Your task to perform on an android device: turn off notifications in google photos Image 0: 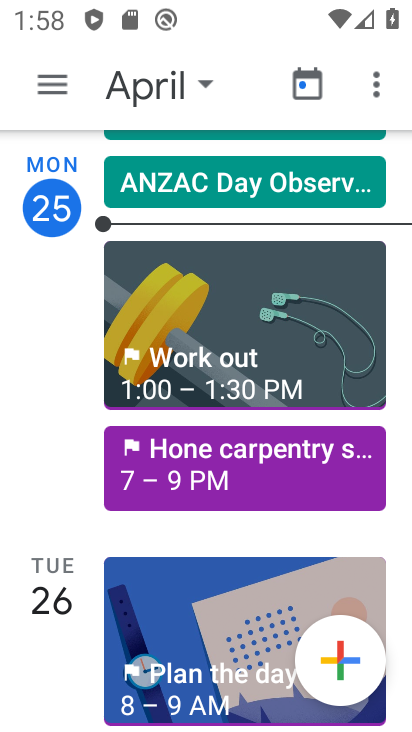
Step 0: press home button
Your task to perform on an android device: turn off notifications in google photos Image 1: 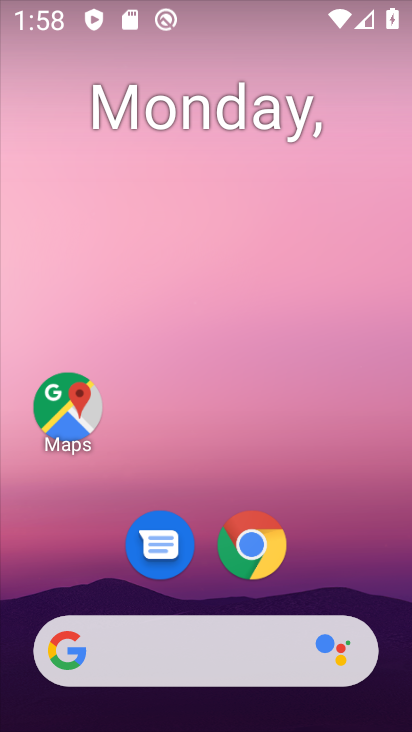
Step 1: drag from (226, 530) to (296, 66)
Your task to perform on an android device: turn off notifications in google photos Image 2: 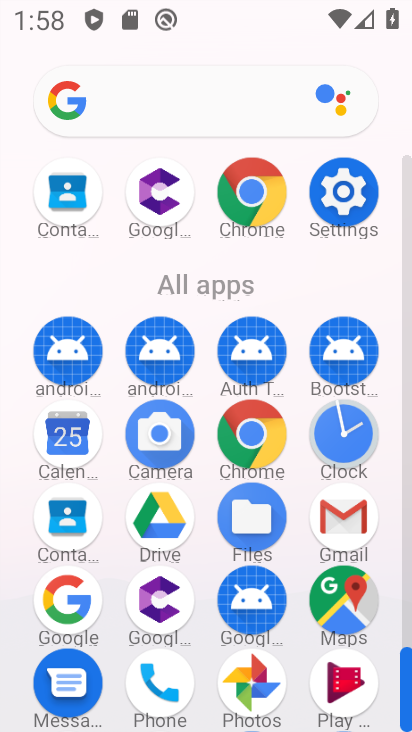
Step 2: click (261, 665)
Your task to perform on an android device: turn off notifications in google photos Image 3: 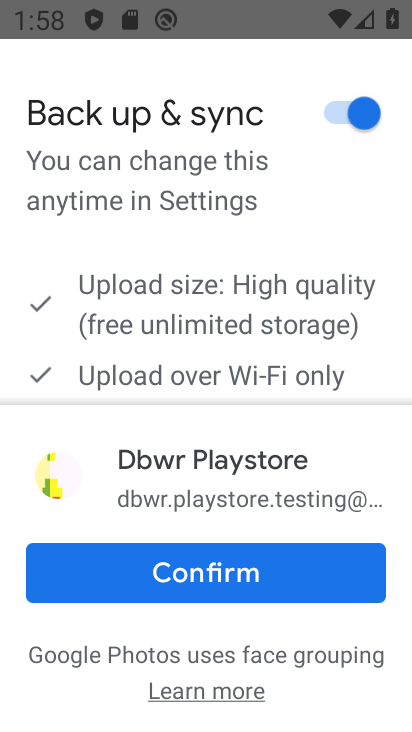
Step 3: click (237, 573)
Your task to perform on an android device: turn off notifications in google photos Image 4: 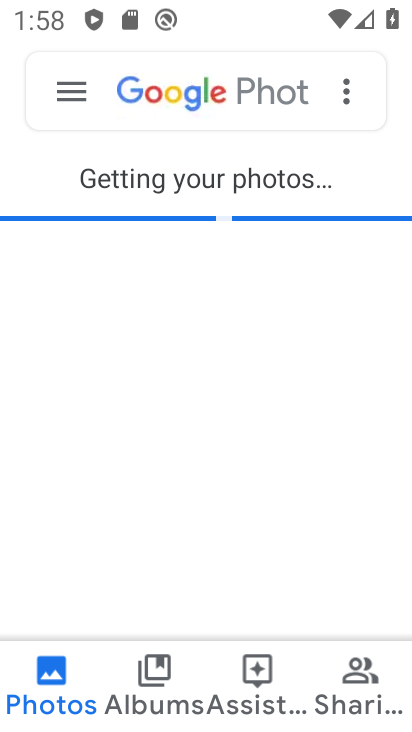
Step 4: click (73, 88)
Your task to perform on an android device: turn off notifications in google photos Image 5: 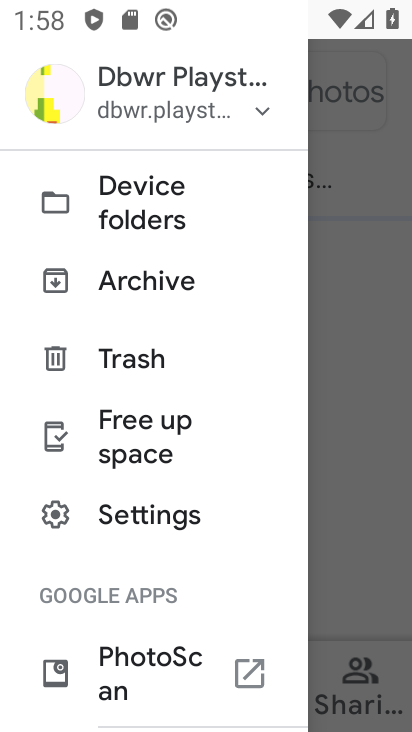
Step 5: click (124, 516)
Your task to perform on an android device: turn off notifications in google photos Image 6: 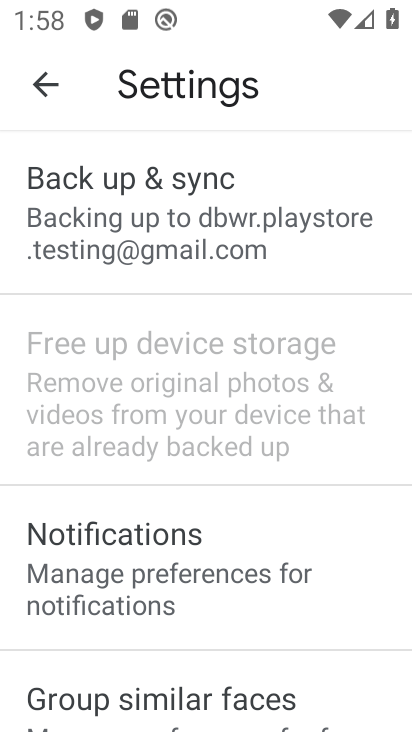
Step 6: drag from (135, 650) to (245, 78)
Your task to perform on an android device: turn off notifications in google photos Image 7: 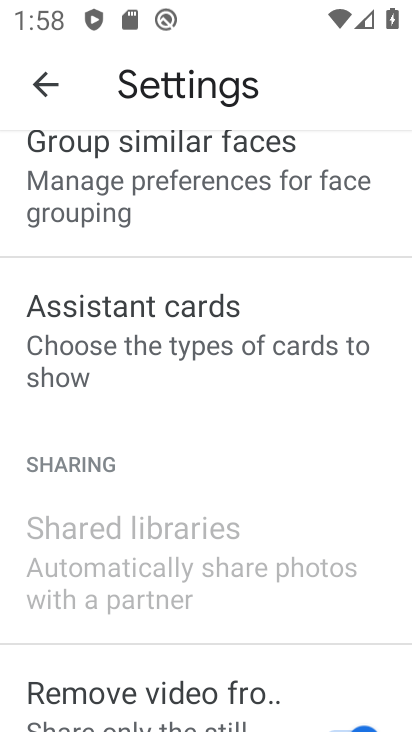
Step 7: drag from (111, 264) to (112, 625)
Your task to perform on an android device: turn off notifications in google photos Image 8: 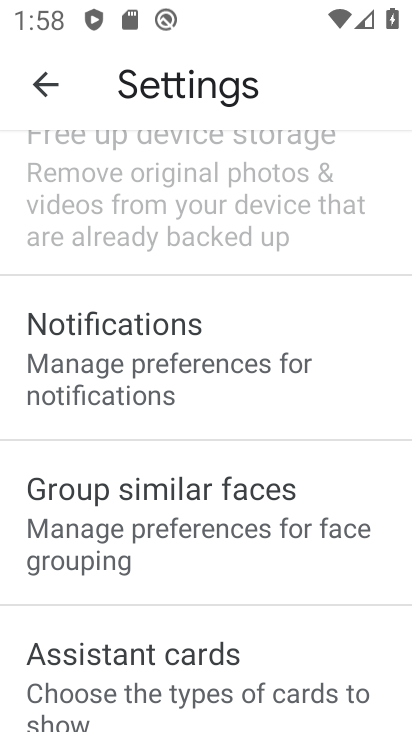
Step 8: click (164, 390)
Your task to perform on an android device: turn off notifications in google photos Image 9: 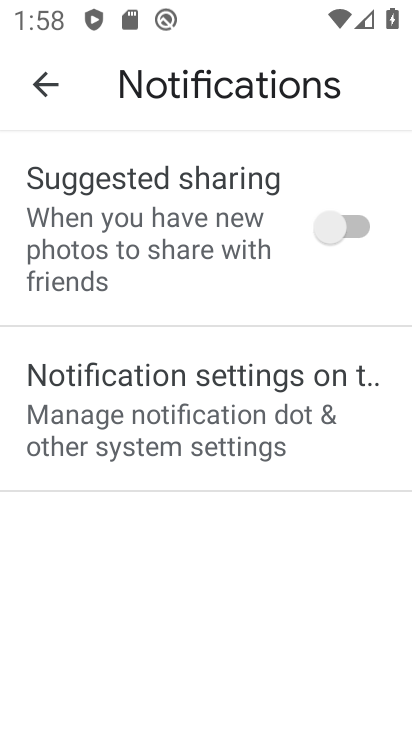
Step 9: click (196, 406)
Your task to perform on an android device: turn off notifications in google photos Image 10: 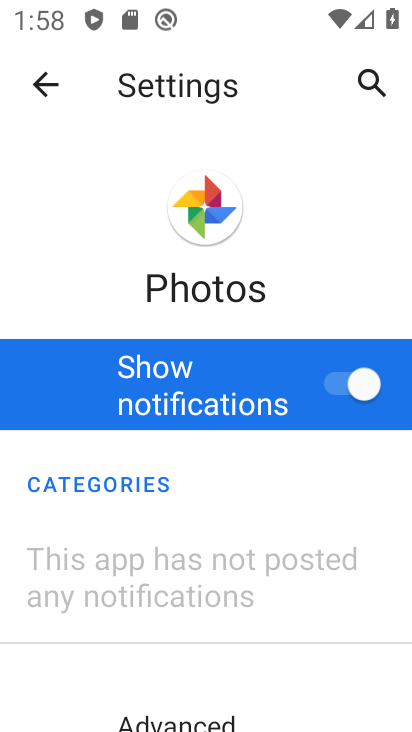
Step 10: click (354, 376)
Your task to perform on an android device: turn off notifications in google photos Image 11: 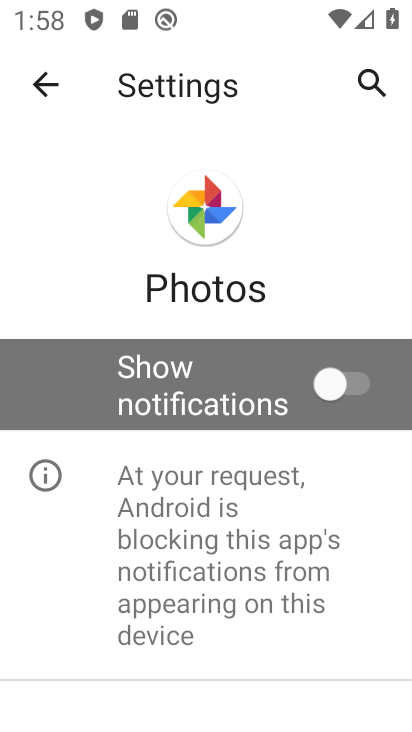
Step 11: task complete